Your task to perform on an android device: add a label to a message in the gmail app Image 0: 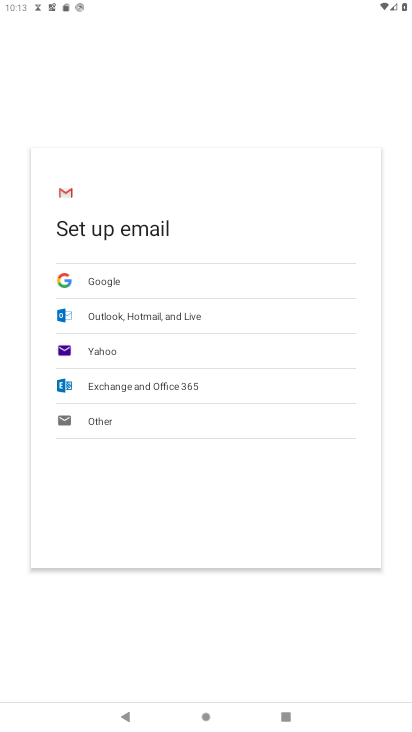
Step 0: press home button
Your task to perform on an android device: add a label to a message in the gmail app Image 1: 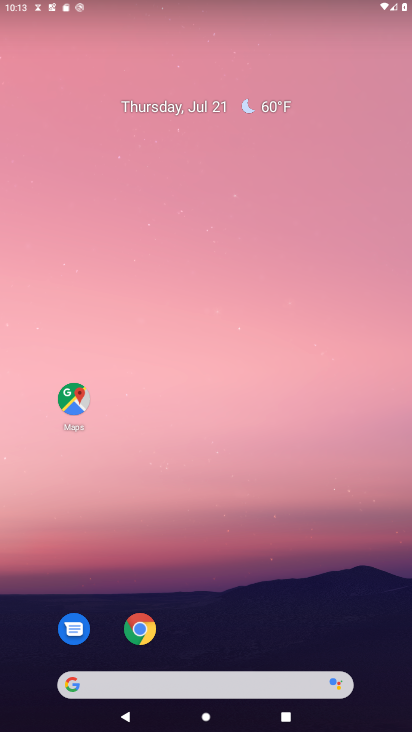
Step 1: drag from (219, 609) to (246, 189)
Your task to perform on an android device: add a label to a message in the gmail app Image 2: 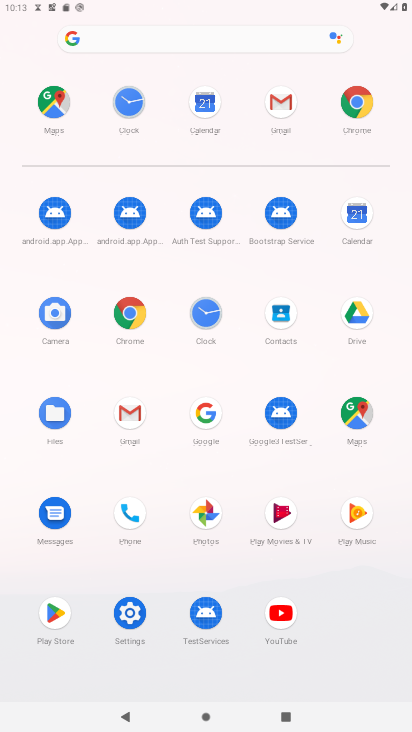
Step 2: click (287, 102)
Your task to perform on an android device: add a label to a message in the gmail app Image 3: 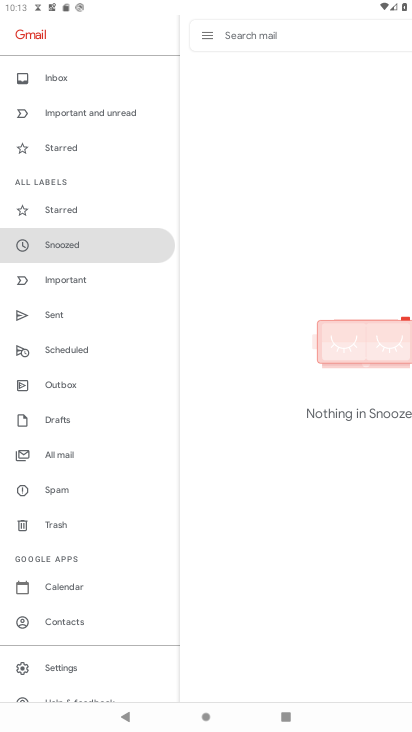
Step 3: click (65, 455)
Your task to perform on an android device: add a label to a message in the gmail app Image 4: 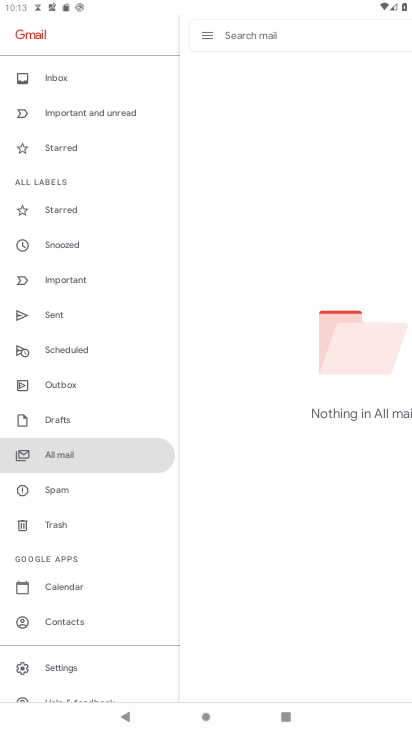
Step 4: click (91, 460)
Your task to perform on an android device: add a label to a message in the gmail app Image 5: 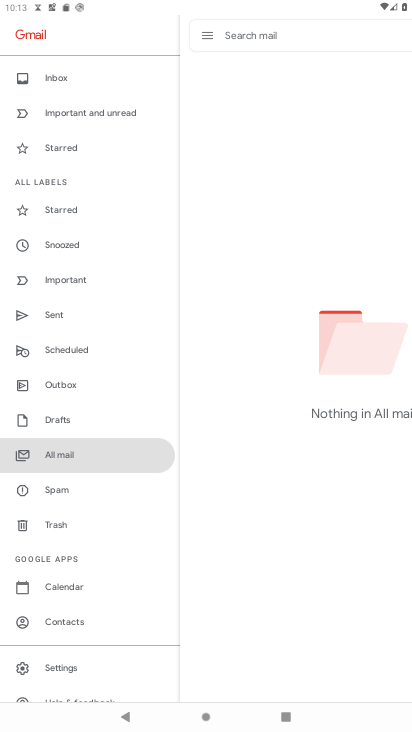
Step 5: click (91, 460)
Your task to perform on an android device: add a label to a message in the gmail app Image 6: 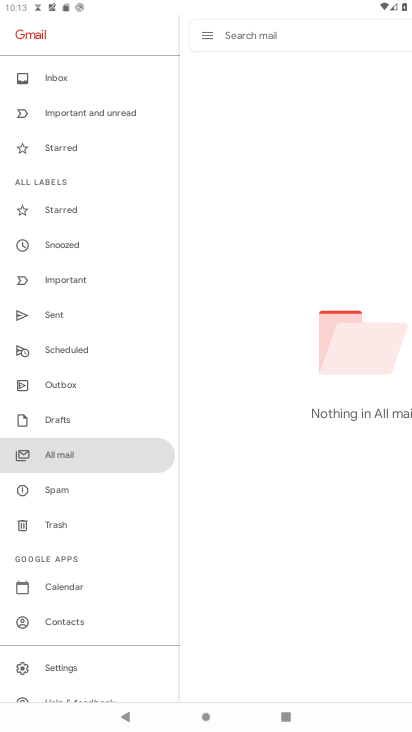
Step 6: click (91, 460)
Your task to perform on an android device: add a label to a message in the gmail app Image 7: 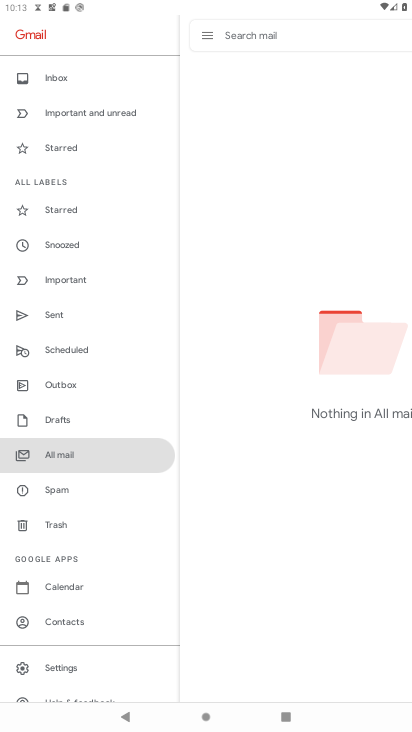
Step 7: click (91, 460)
Your task to perform on an android device: add a label to a message in the gmail app Image 8: 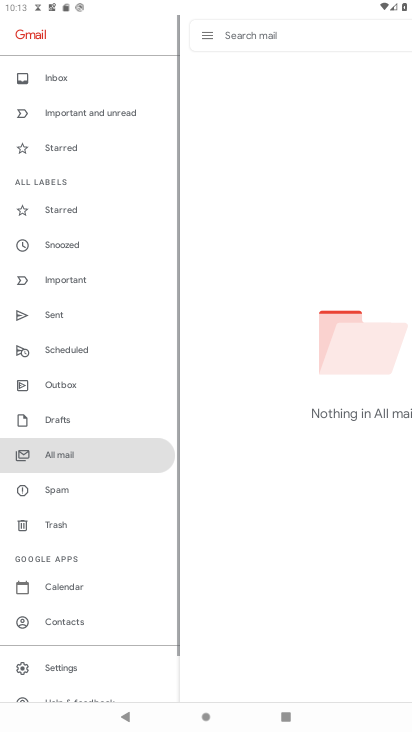
Step 8: click (91, 460)
Your task to perform on an android device: add a label to a message in the gmail app Image 9: 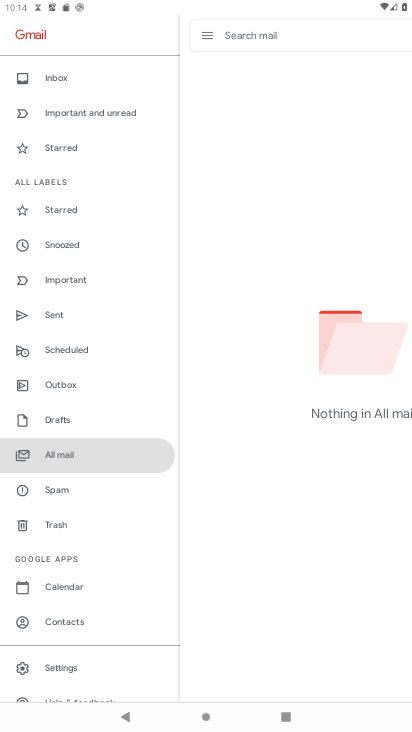
Step 9: click (113, 456)
Your task to perform on an android device: add a label to a message in the gmail app Image 10: 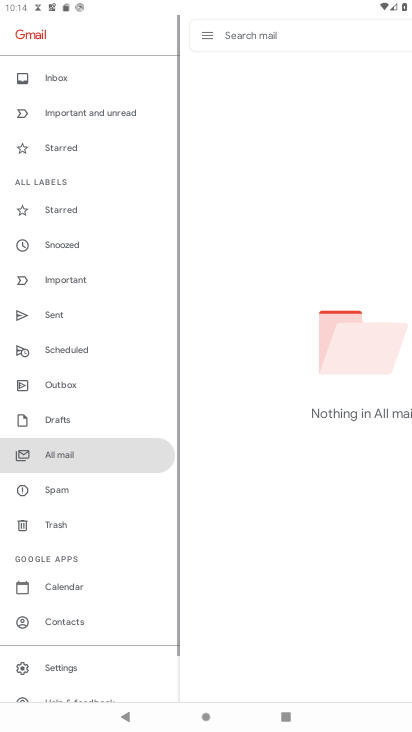
Step 10: task complete